Your task to perform on an android device: check battery use Image 0: 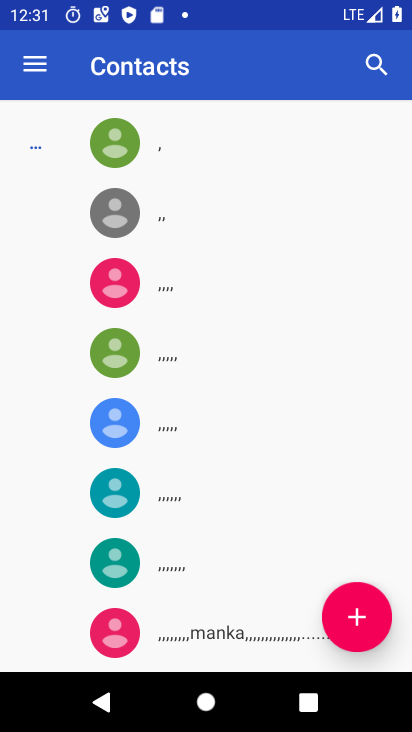
Step 0: press home button
Your task to perform on an android device: check battery use Image 1: 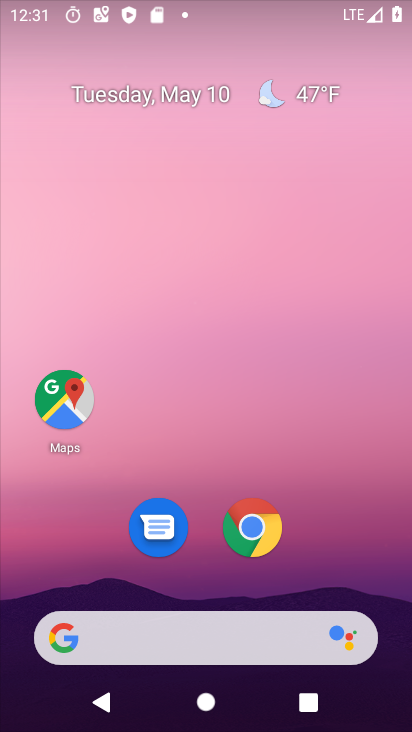
Step 1: drag from (339, 505) to (313, 120)
Your task to perform on an android device: check battery use Image 2: 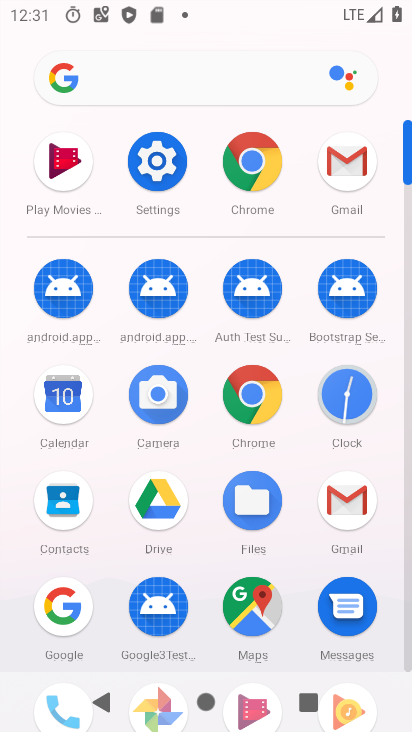
Step 2: click (137, 181)
Your task to perform on an android device: check battery use Image 3: 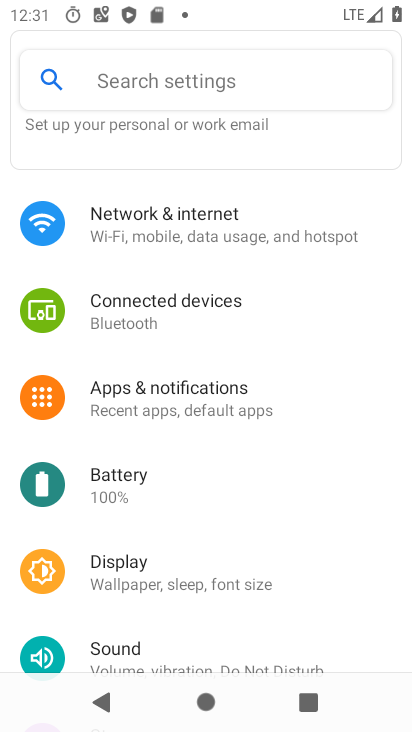
Step 3: click (118, 498)
Your task to perform on an android device: check battery use Image 4: 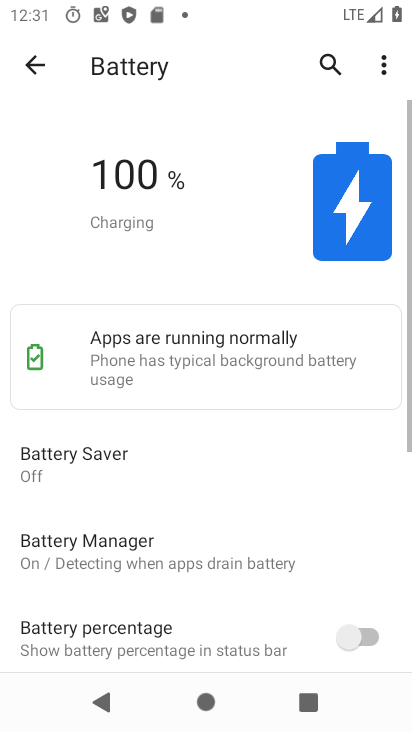
Step 4: click (376, 64)
Your task to perform on an android device: check battery use Image 5: 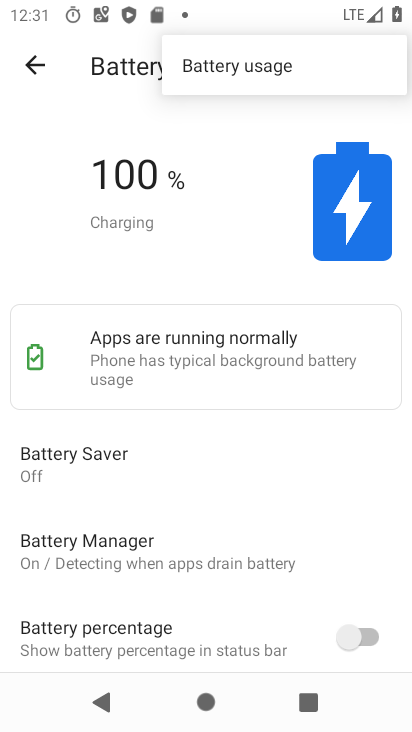
Step 5: click (271, 76)
Your task to perform on an android device: check battery use Image 6: 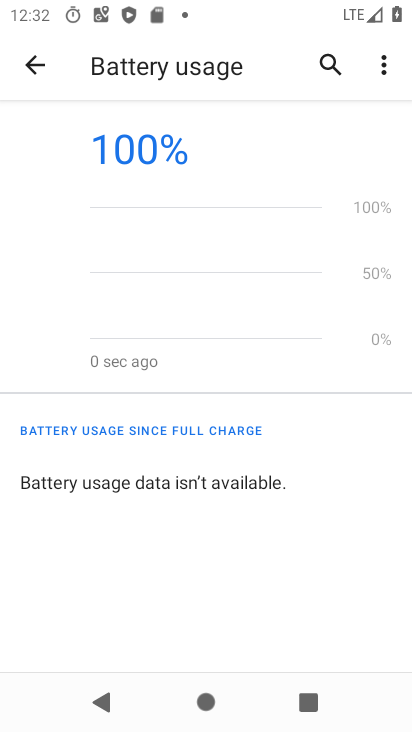
Step 6: task complete